Your task to perform on an android device: What's on my calendar tomorrow? Image 0: 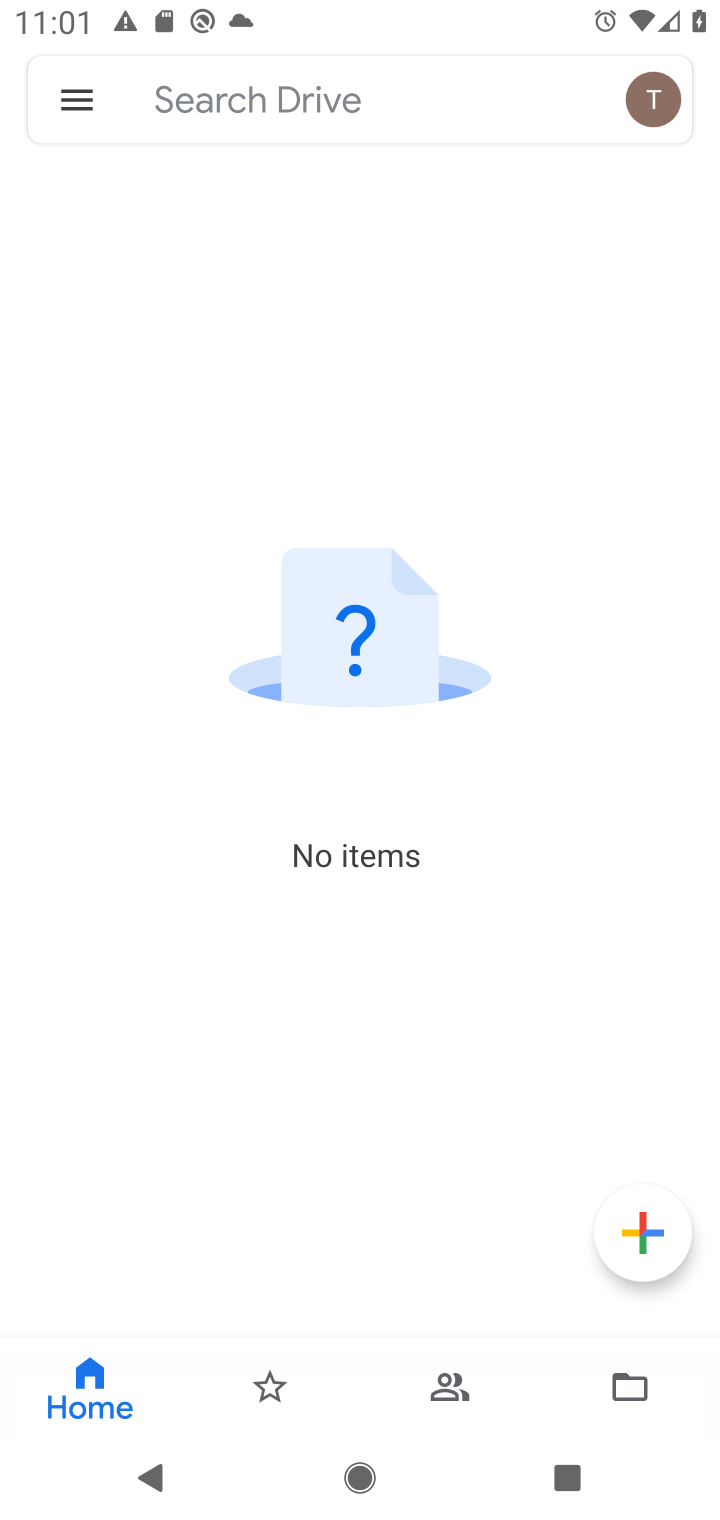
Step 0: press home button
Your task to perform on an android device: What's on my calendar tomorrow? Image 1: 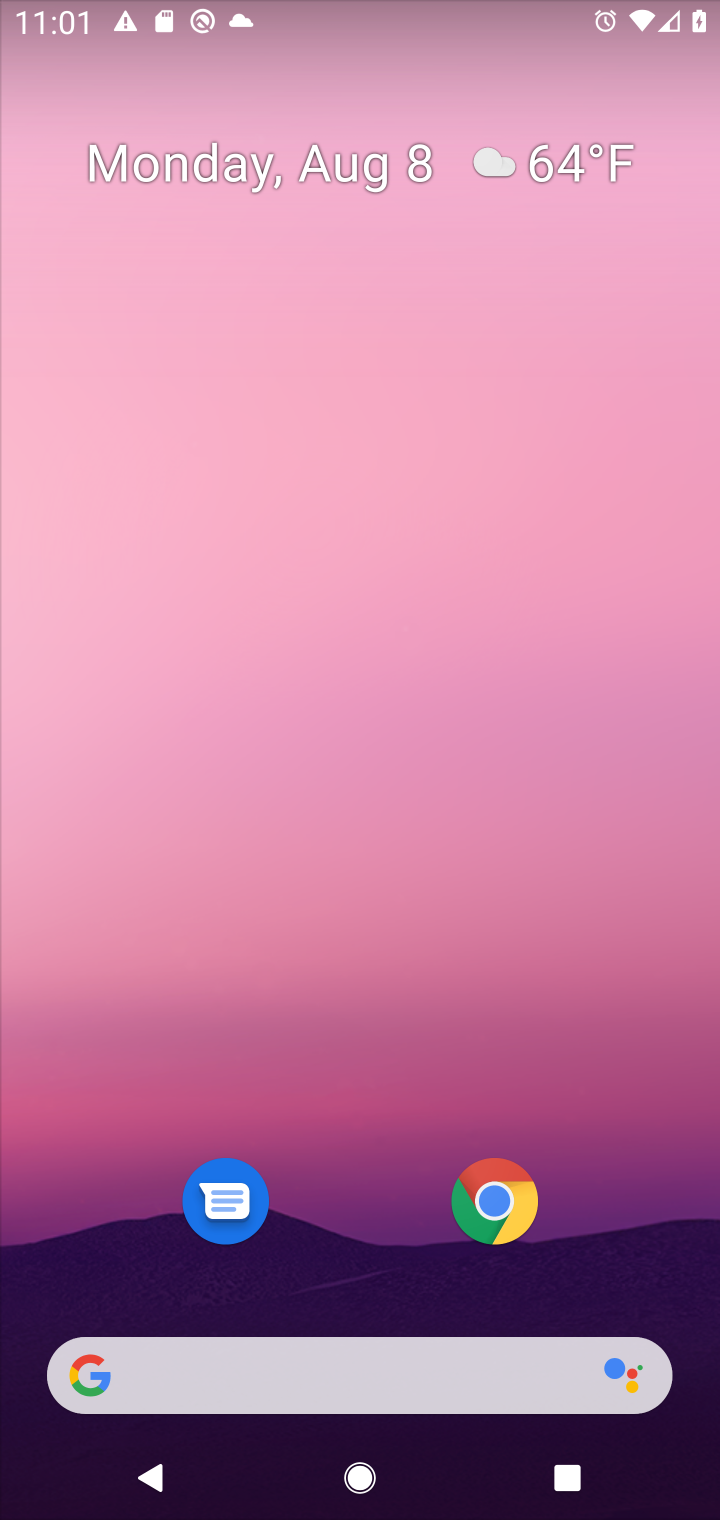
Step 1: drag from (354, 1156) to (424, 208)
Your task to perform on an android device: What's on my calendar tomorrow? Image 2: 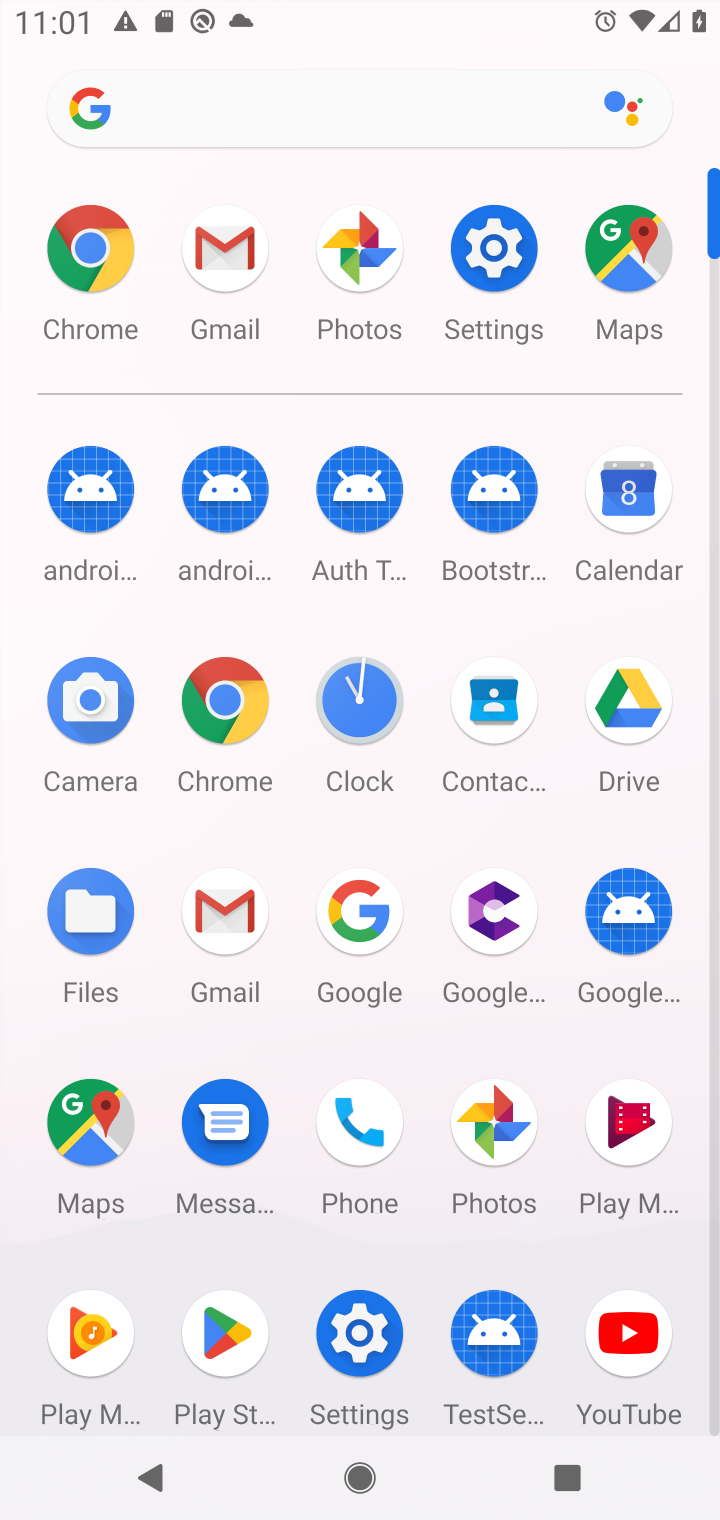
Step 2: click (633, 510)
Your task to perform on an android device: What's on my calendar tomorrow? Image 3: 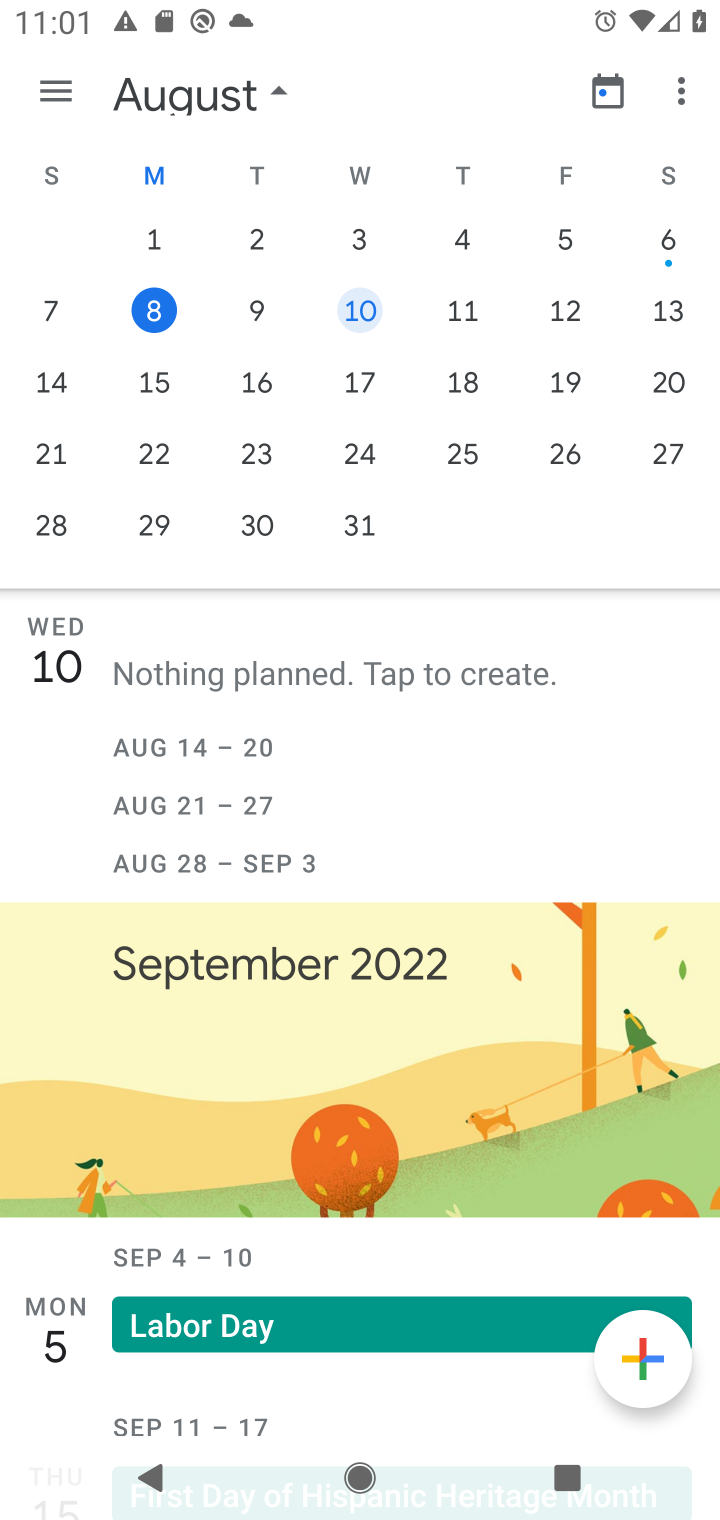
Step 3: task complete